Your task to perform on an android device: move a message to another label in the gmail app Image 0: 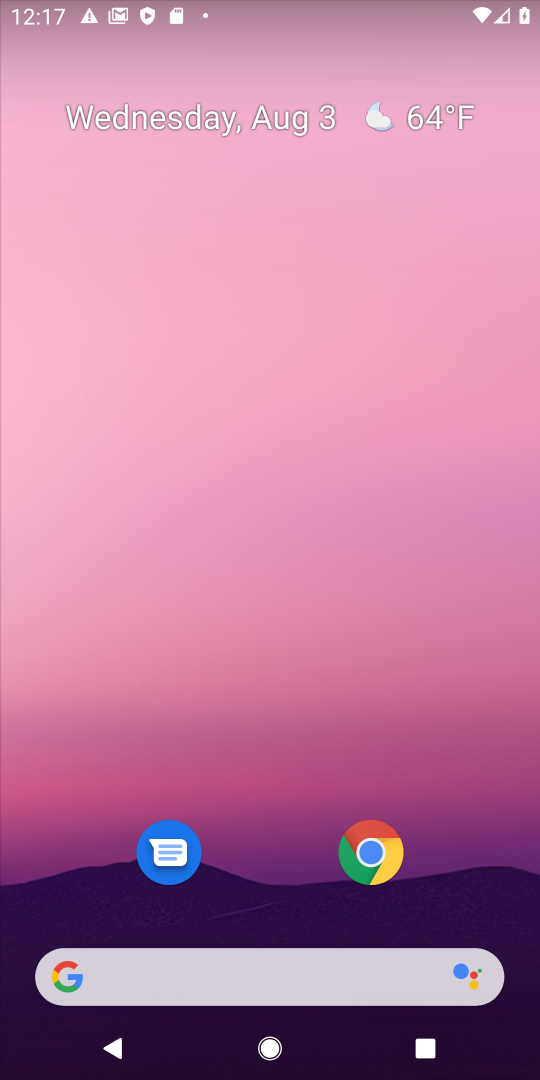
Step 0: drag from (274, 910) to (270, 17)
Your task to perform on an android device: move a message to another label in the gmail app Image 1: 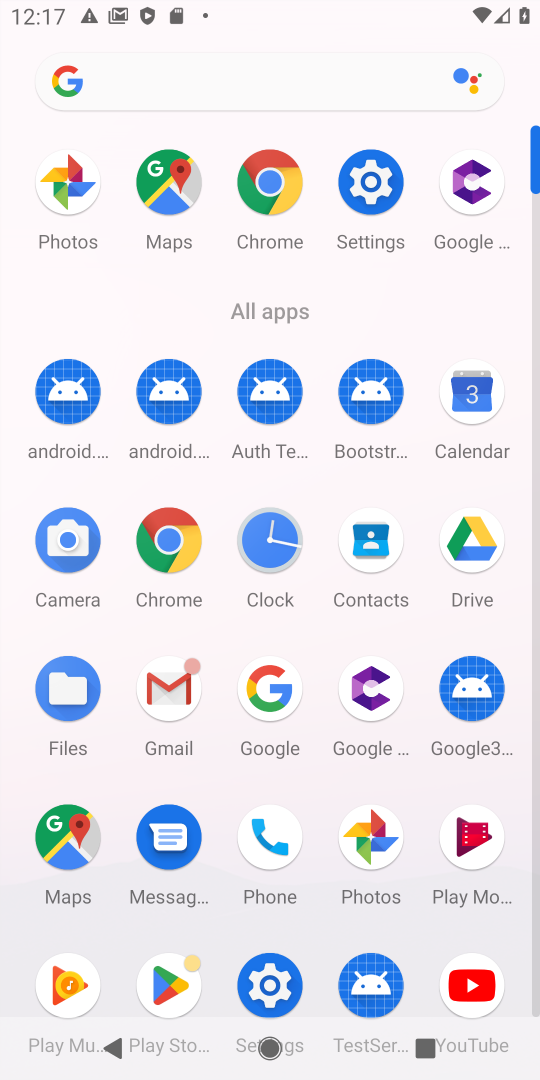
Step 1: click (164, 678)
Your task to perform on an android device: move a message to another label in the gmail app Image 2: 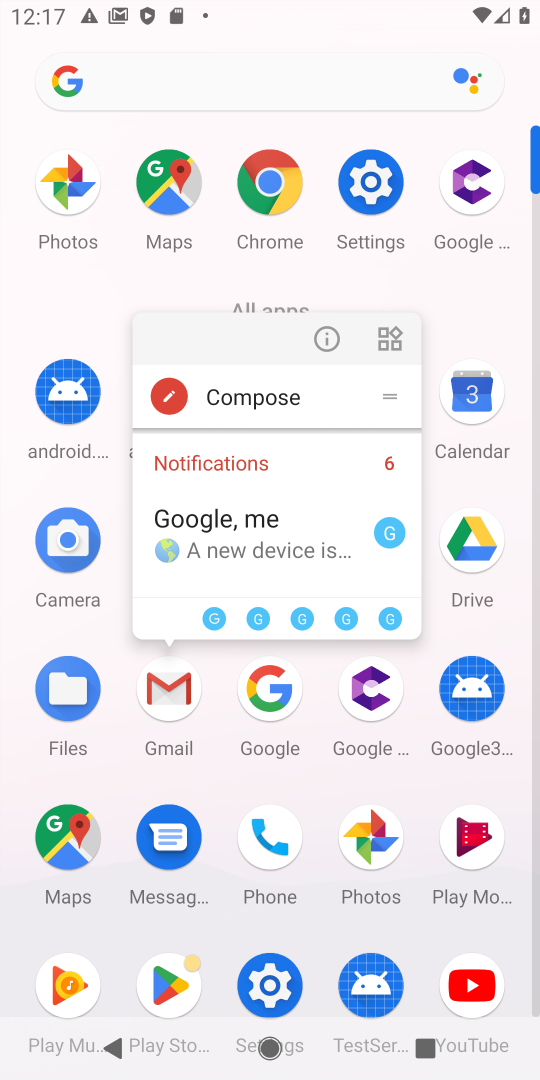
Step 2: click (168, 681)
Your task to perform on an android device: move a message to another label in the gmail app Image 3: 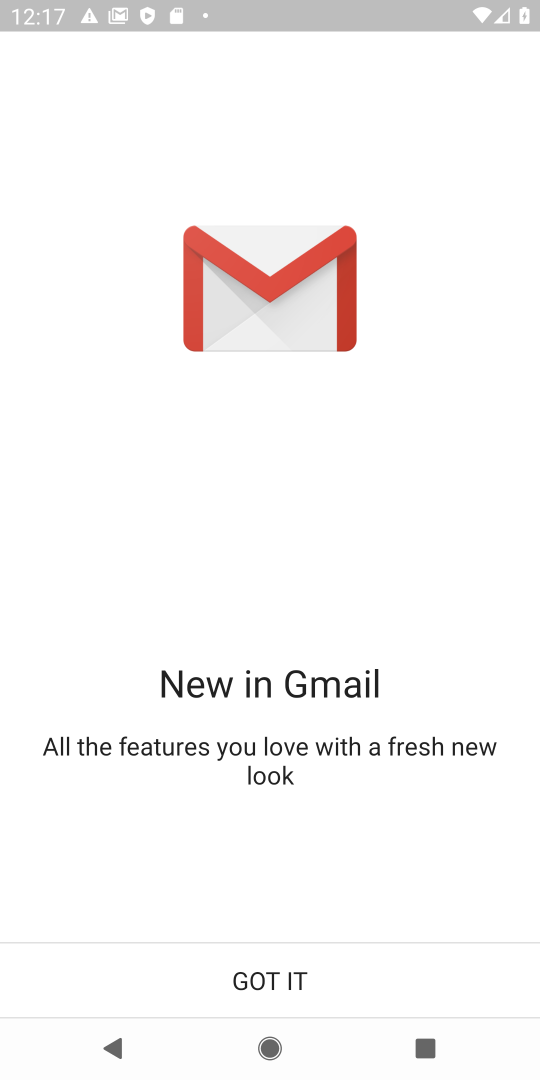
Step 3: click (275, 974)
Your task to perform on an android device: move a message to another label in the gmail app Image 4: 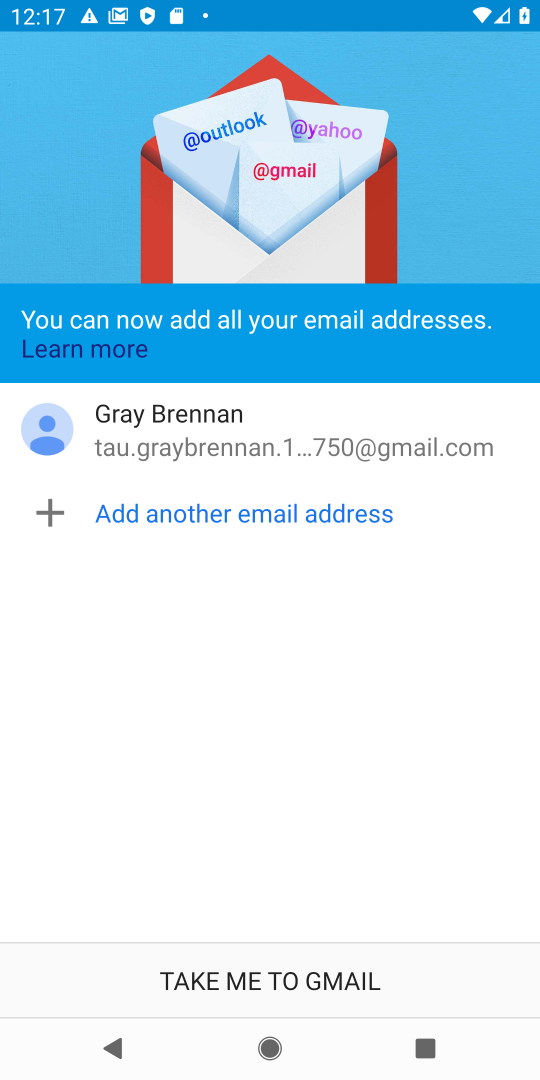
Step 4: click (262, 964)
Your task to perform on an android device: move a message to another label in the gmail app Image 5: 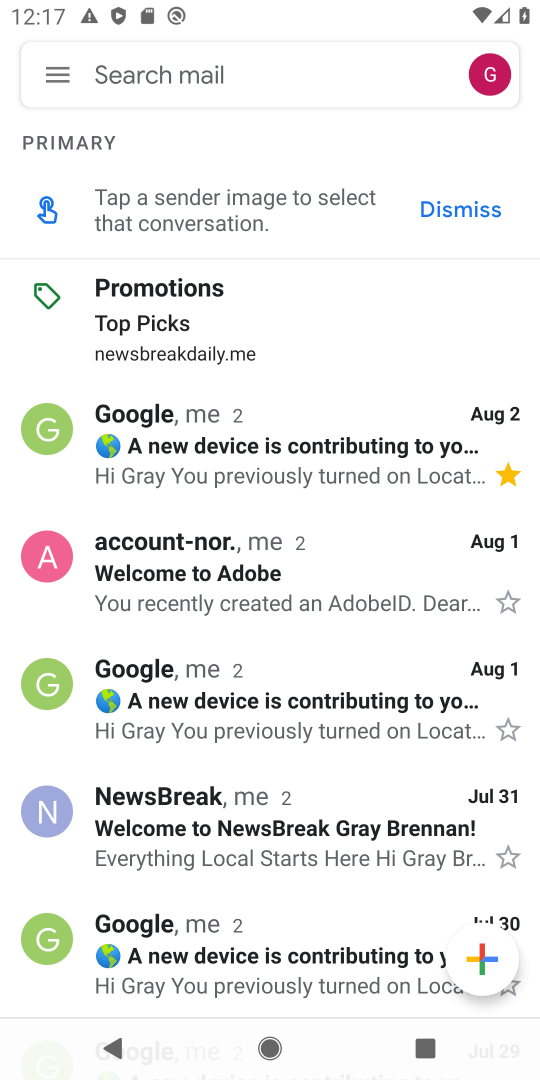
Step 5: click (45, 541)
Your task to perform on an android device: move a message to another label in the gmail app Image 6: 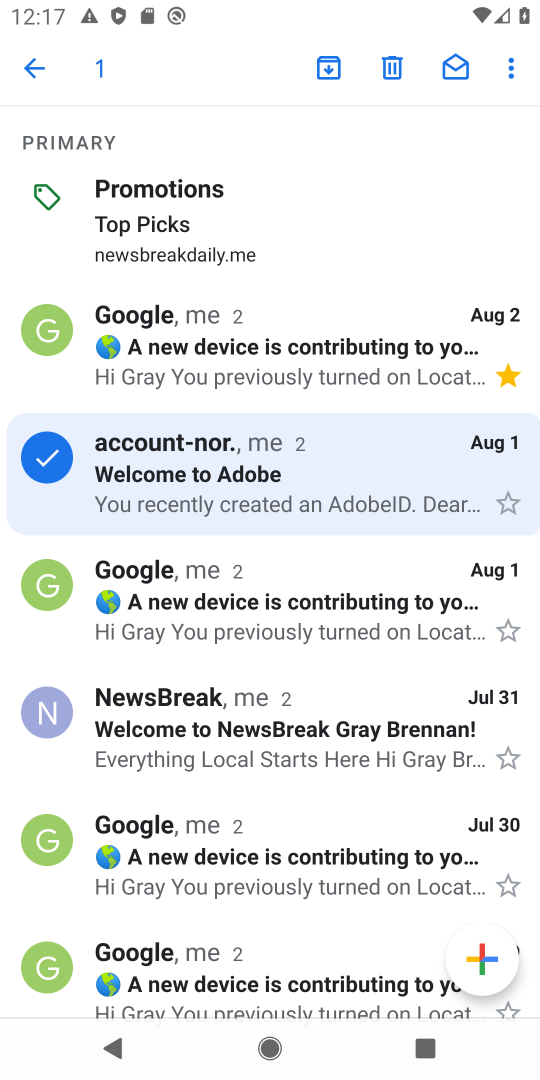
Step 6: click (517, 63)
Your task to perform on an android device: move a message to another label in the gmail app Image 7: 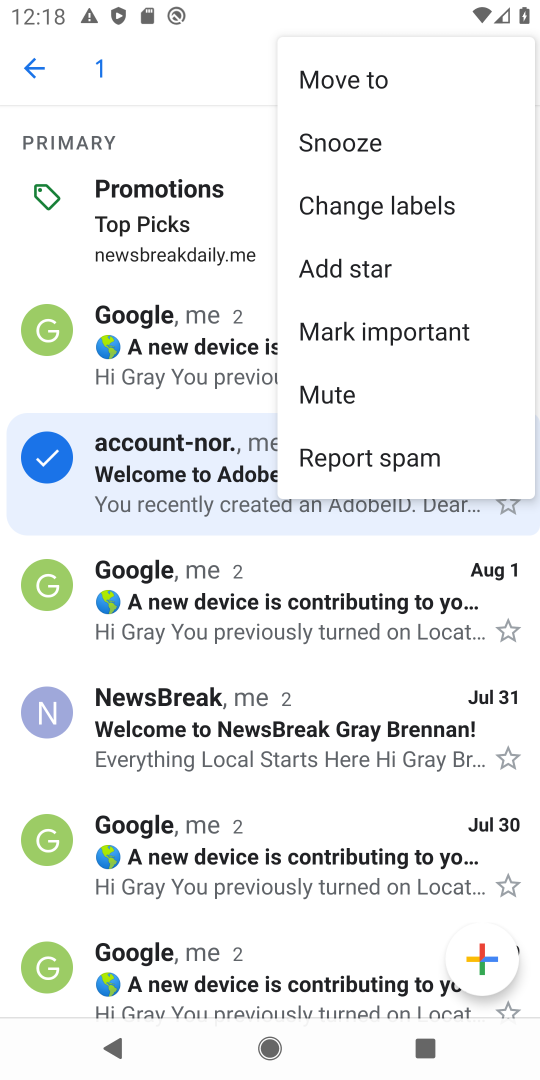
Step 7: click (371, 73)
Your task to perform on an android device: move a message to another label in the gmail app Image 8: 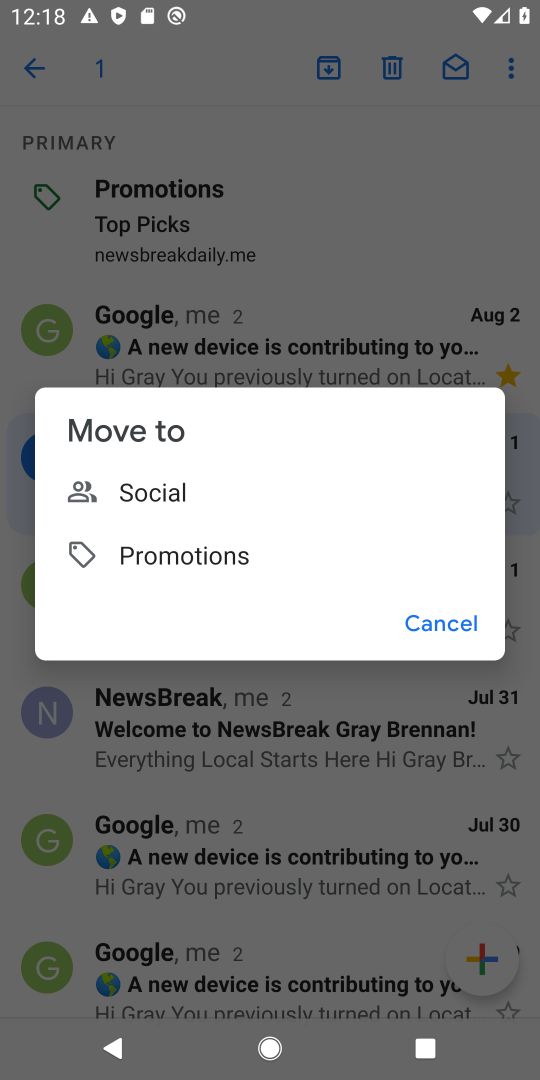
Step 8: click (154, 554)
Your task to perform on an android device: move a message to another label in the gmail app Image 9: 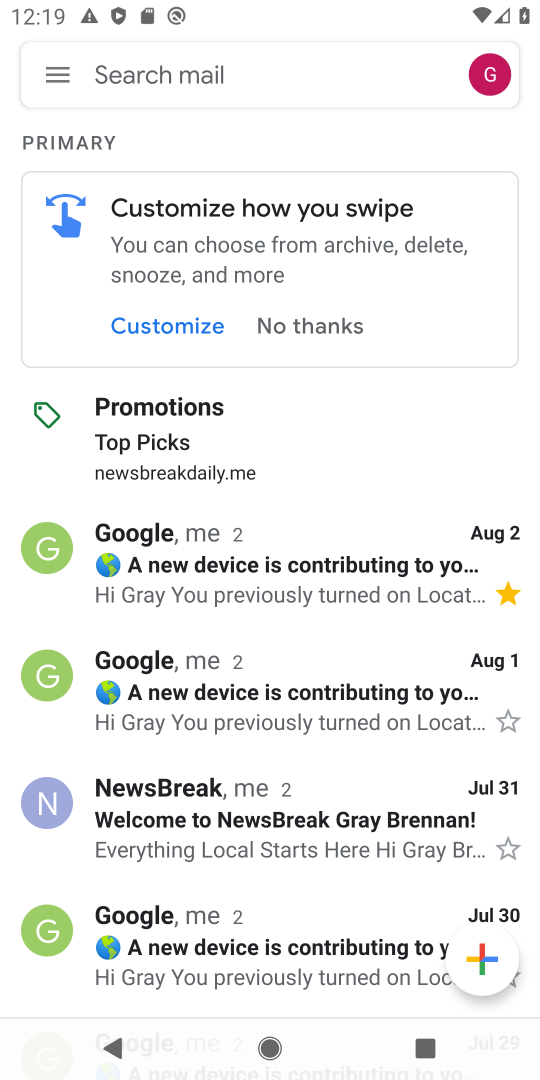
Step 9: task complete